Your task to perform on an android device: Add razer deathadder to the cart on newegg.com, then select checkout. Image 0: 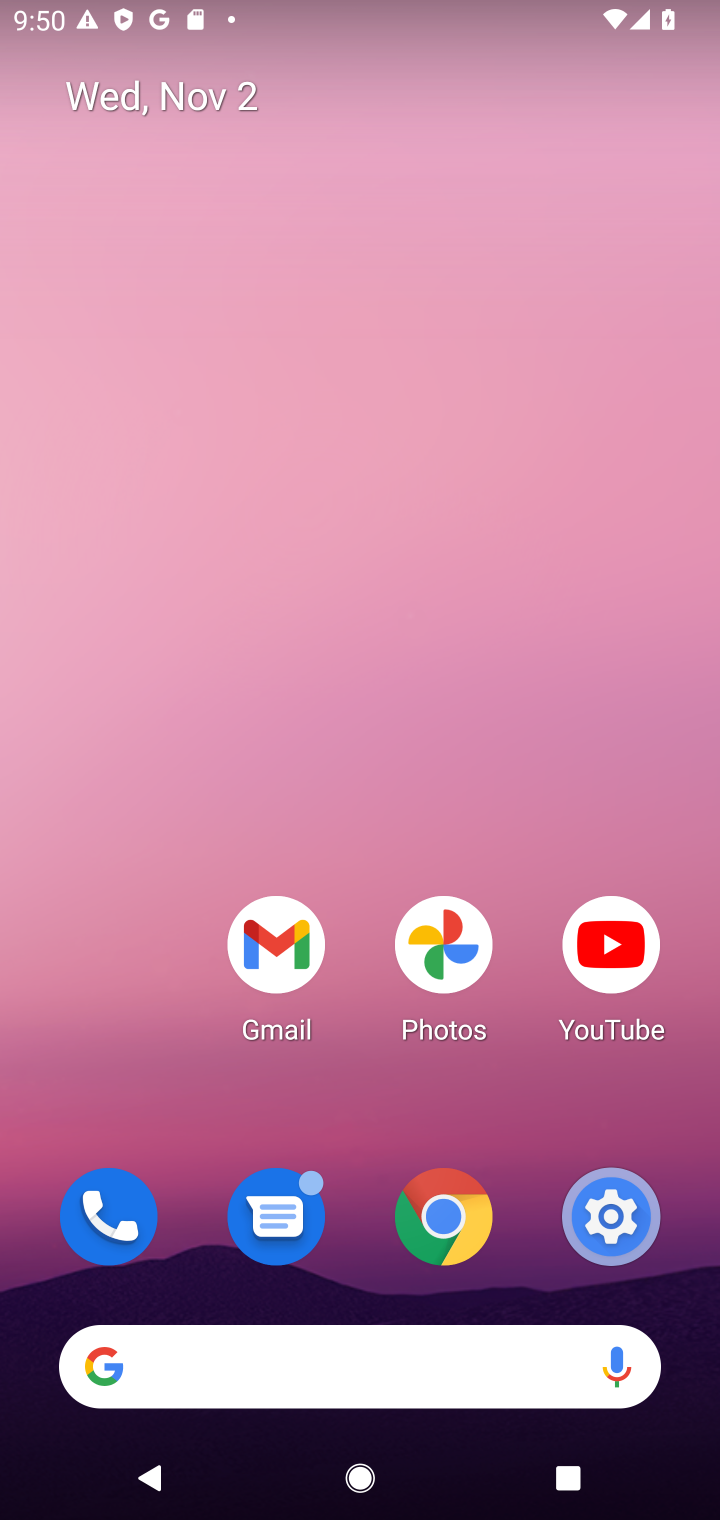
Step 0: click (427, 478)
Your task to perform on an android device: Add razer deathadder to the cart on newegg.com, then select checkout. Image 1: 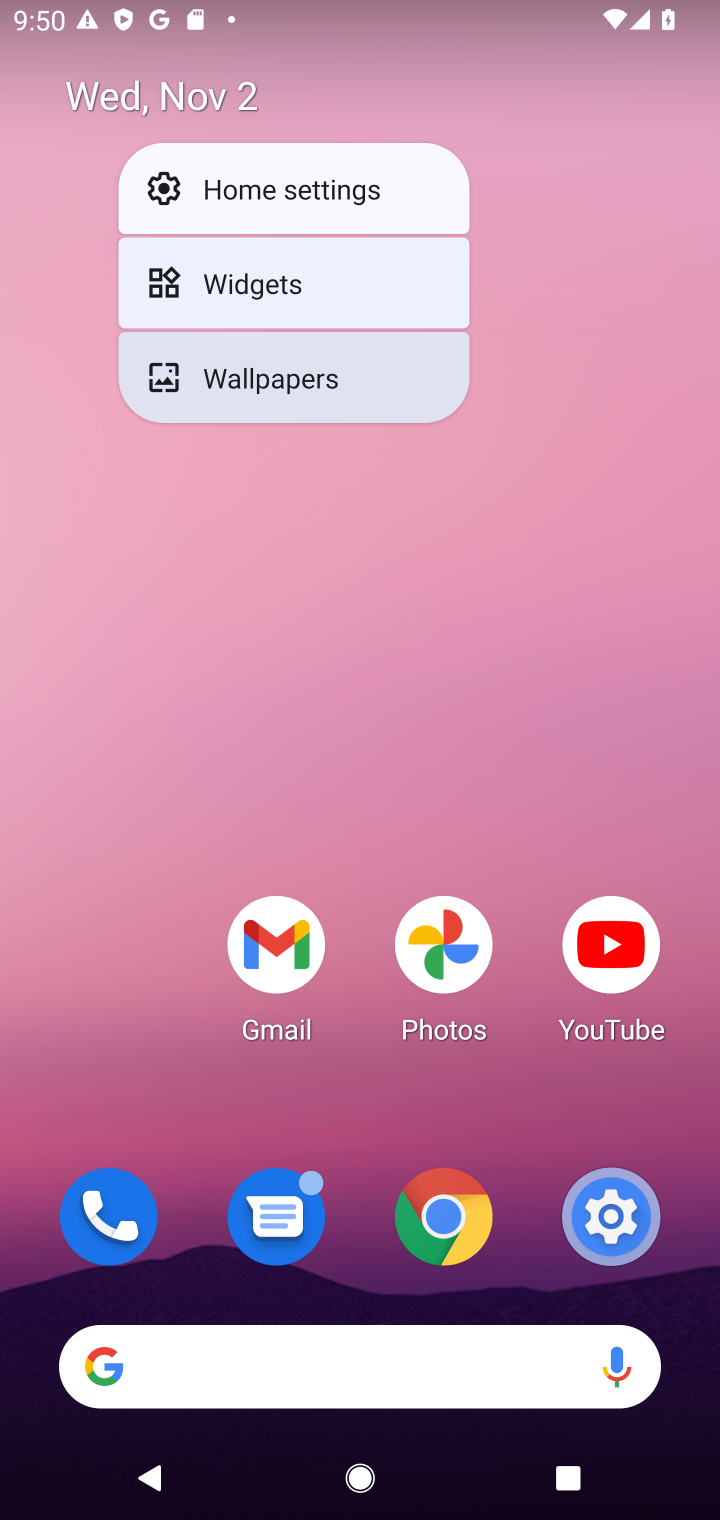
Step 1: press home button
Your task to perform on an android device: Add razer deathadder to the cart on newegg.com, then select checkout. Image 2: 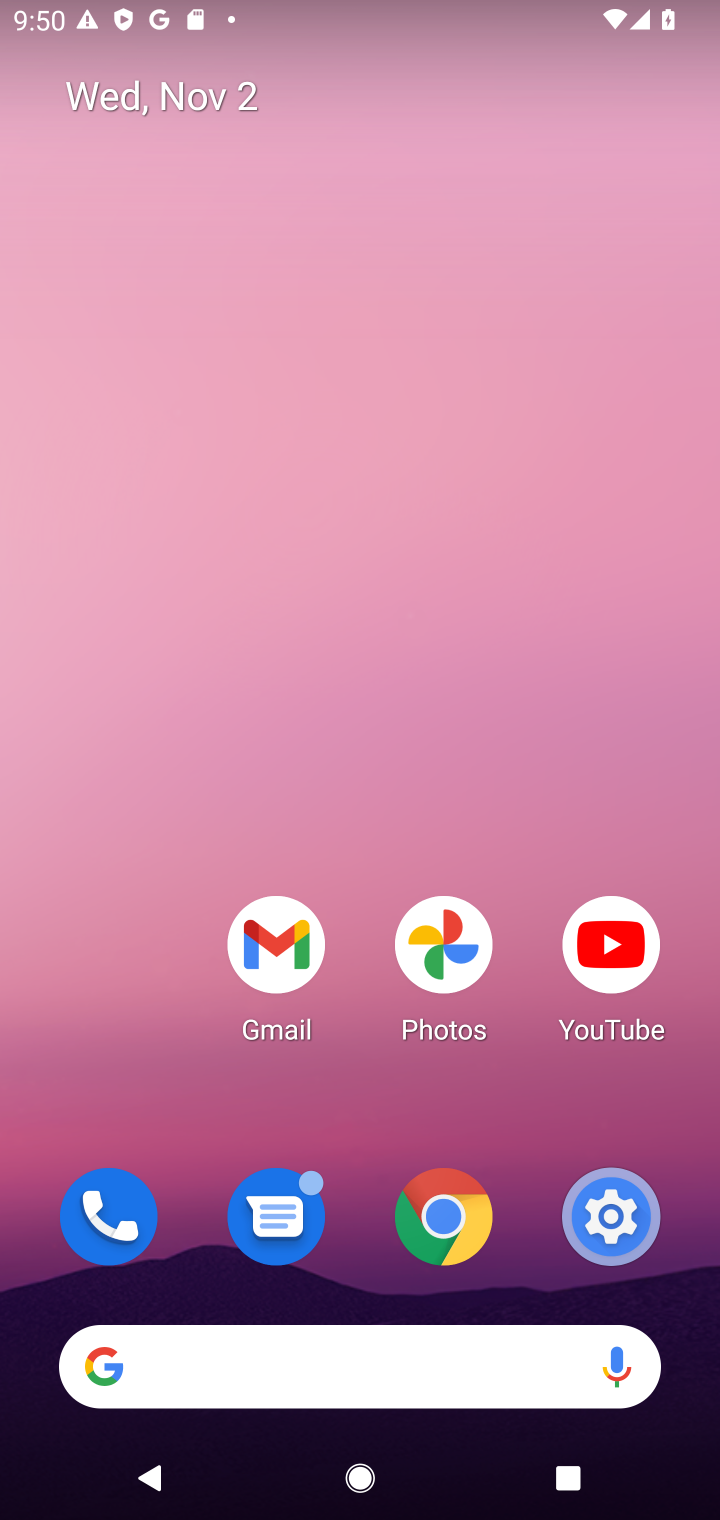
Step 2: drag from (361, 1098) to (381, 15)
Your task to perform on an android device: Add razer deathadder to the cart on newegg.com, then select checkout. Image 3: 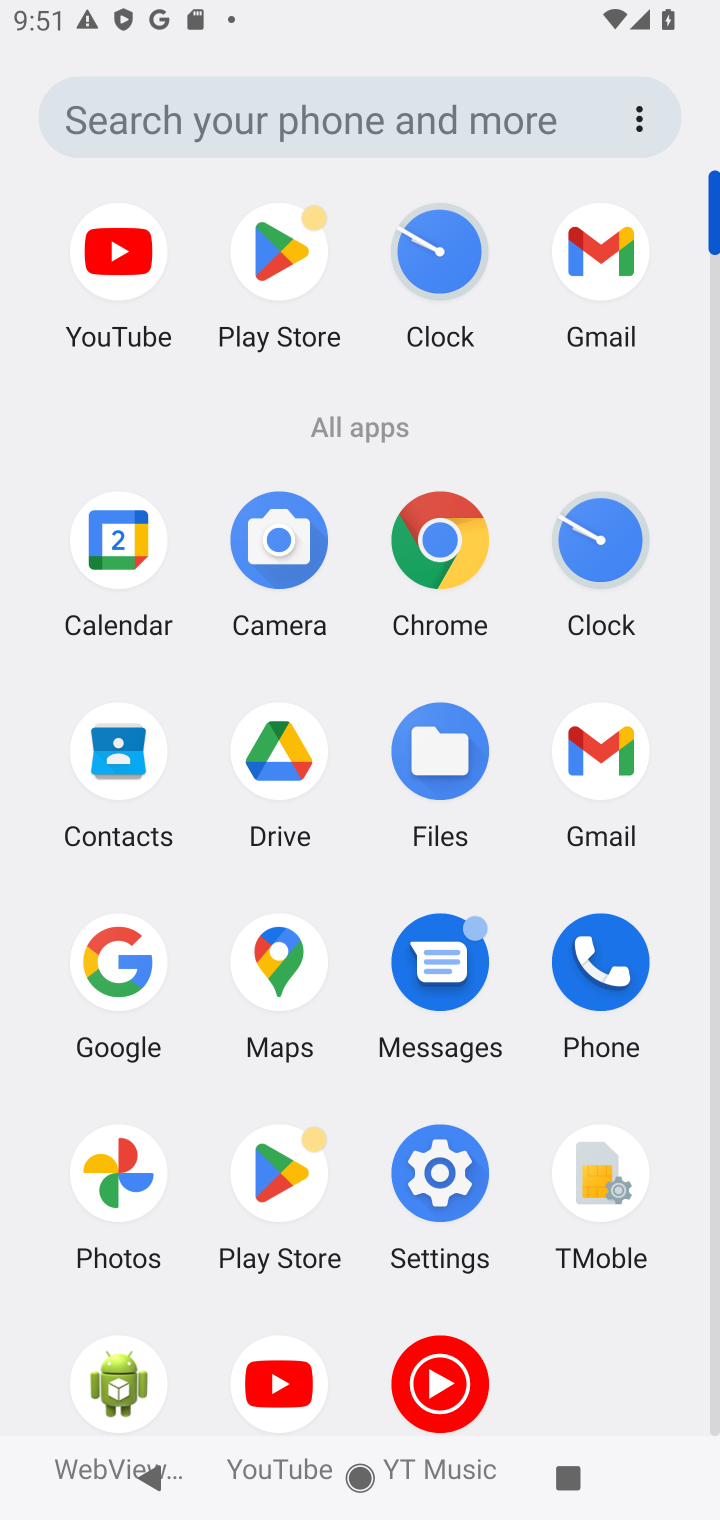
Step 3: click (445, 547)
Your task to perform on an android device: Add razer deathadder to the cart on newegg.com, then select checkout. Image 4: 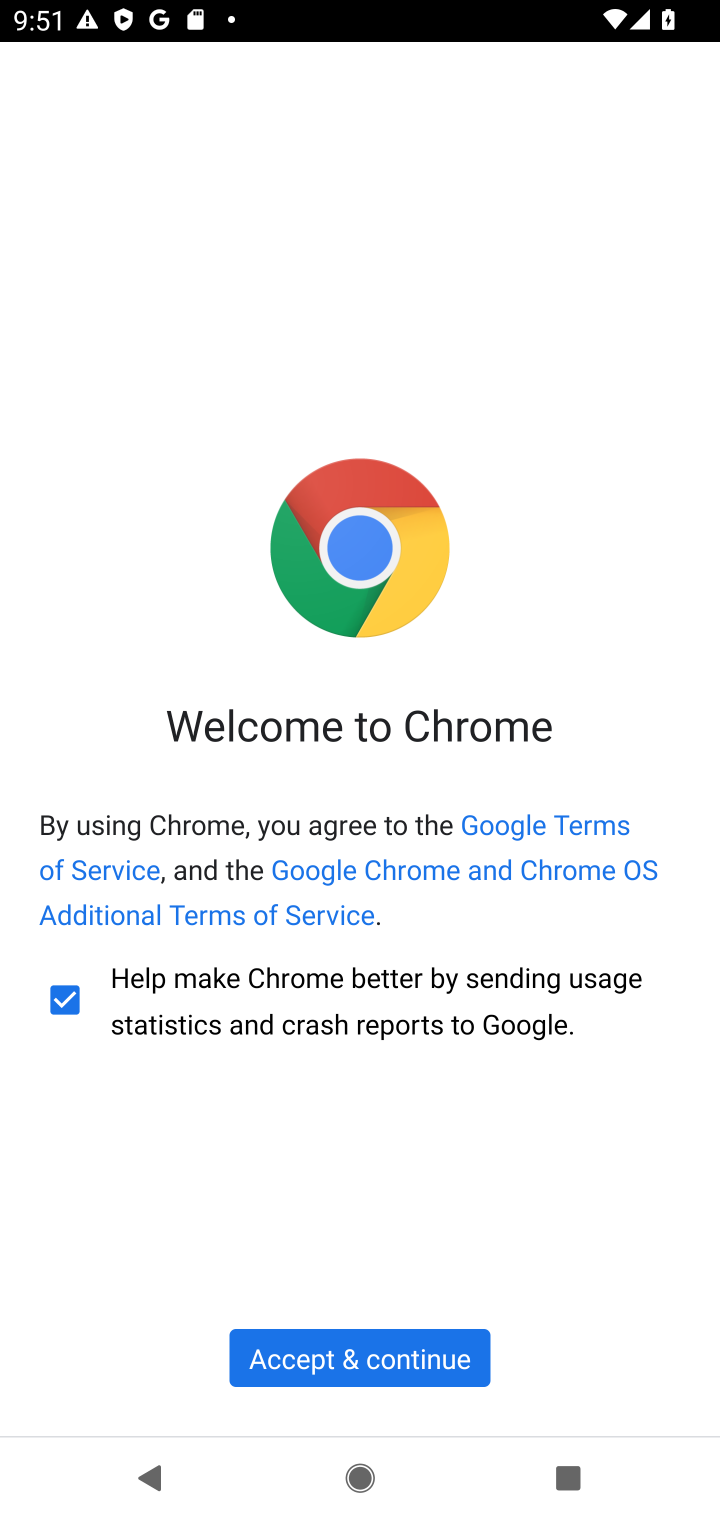
Step 4: click (337, 1372)
Your task to perform on an android device: Add razer deathadder to the cart on newegg.com, then select checkout. Image 5: 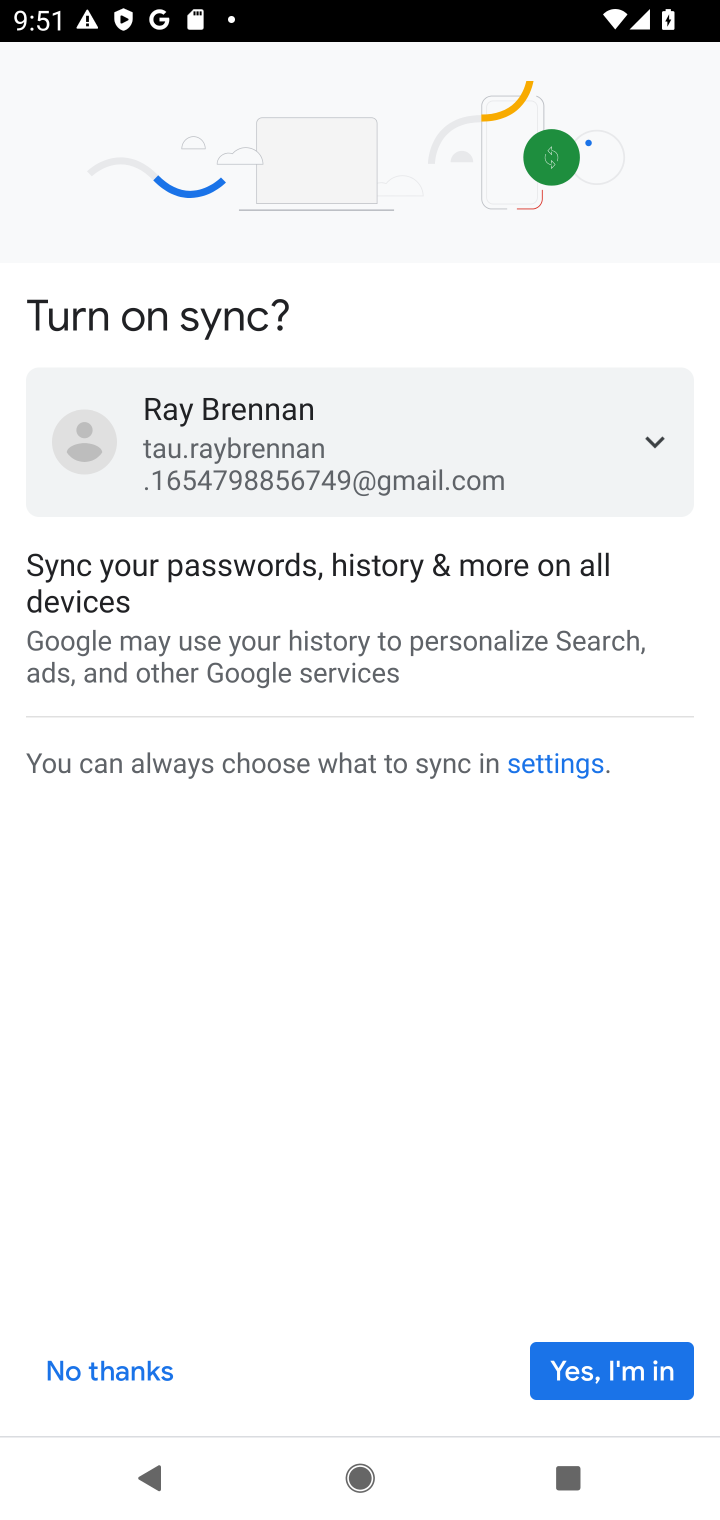
Step 5: click (597, 1367)
Your task to perform on an android device: Add razer deathadder to the cart on newegg.com, then select checkout. Image 6: 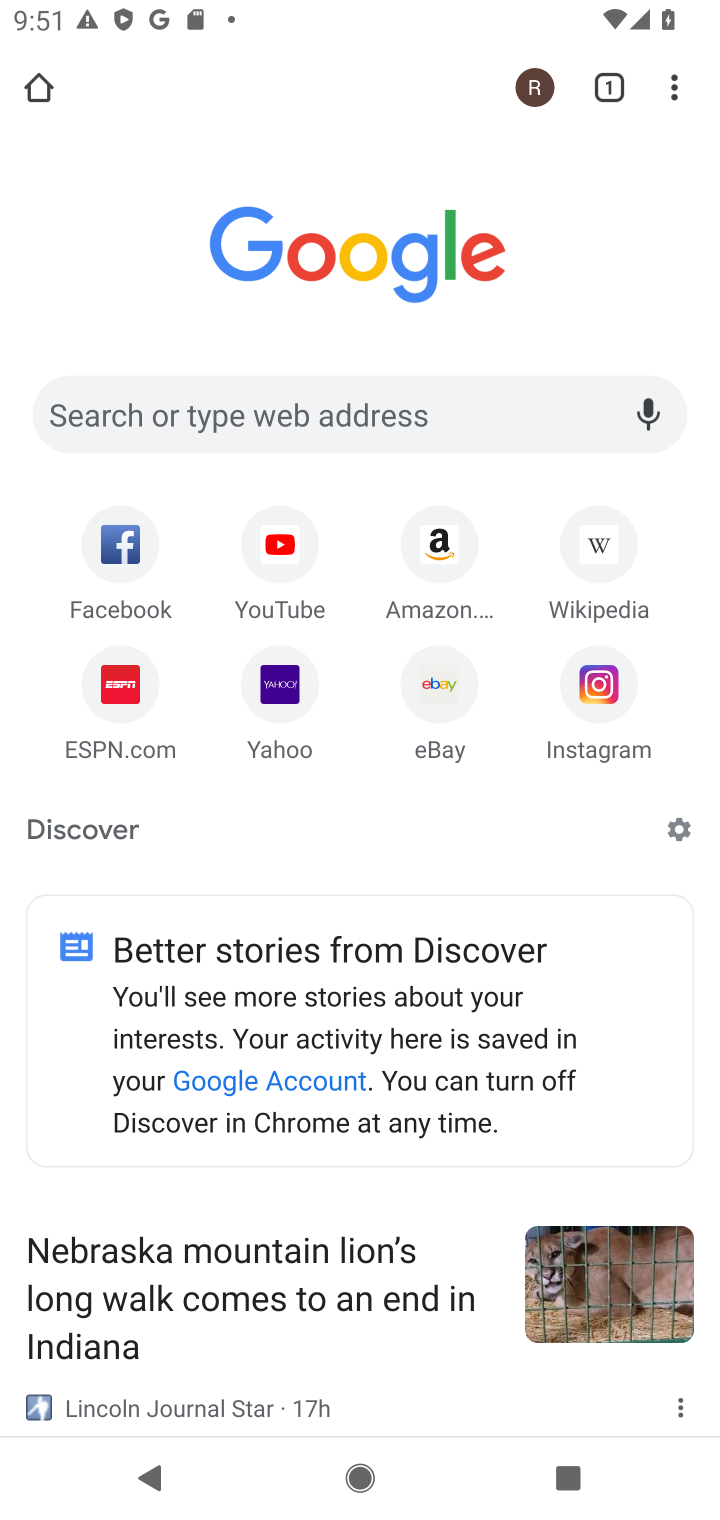
Step 6: click (272, 408)
Your task to perform on an android device: Add razer deathadder to the cart on newegg.com, then select checkout. Image 7: 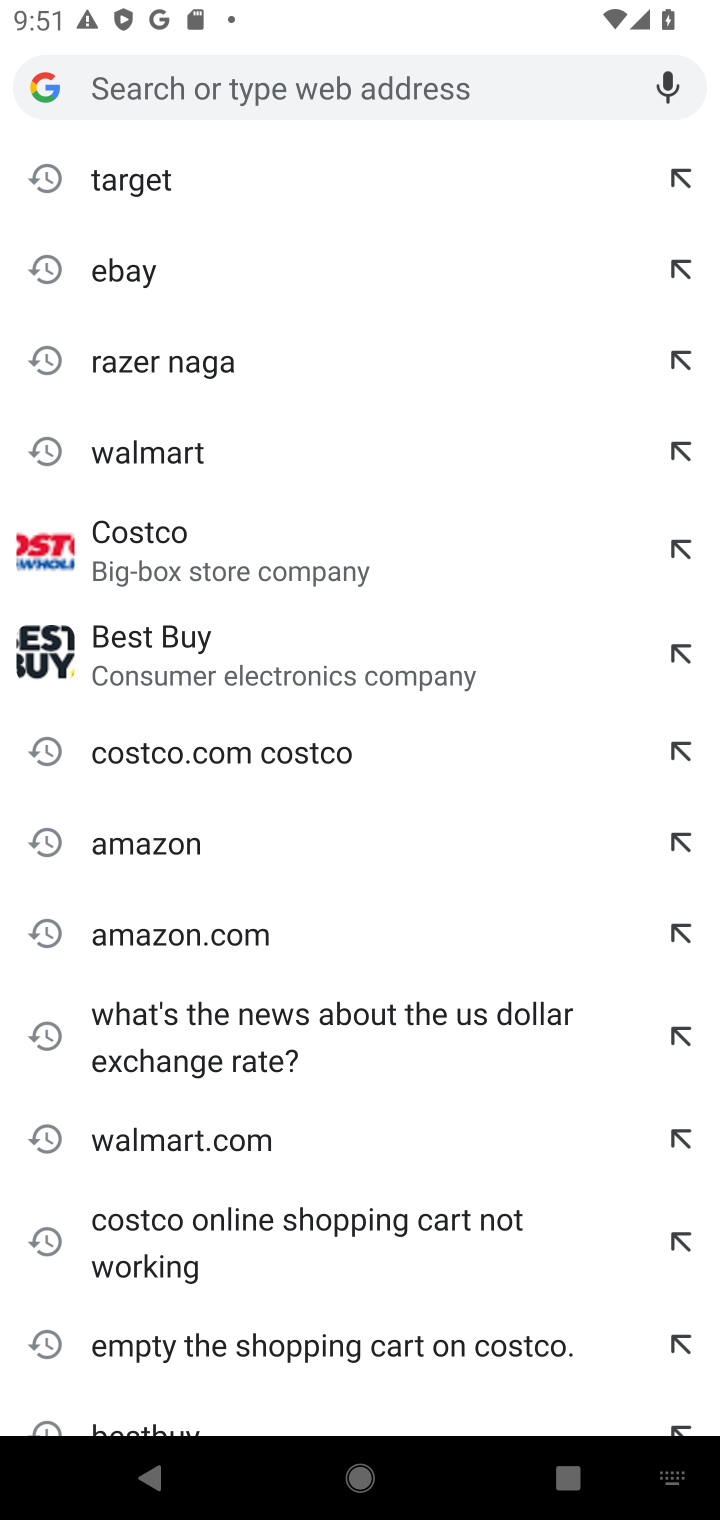
Step 7: type "newegg"
Your task to perform on an android device: Add razer deathadder to the cart on newegg.com, then select checkout. Image 8: 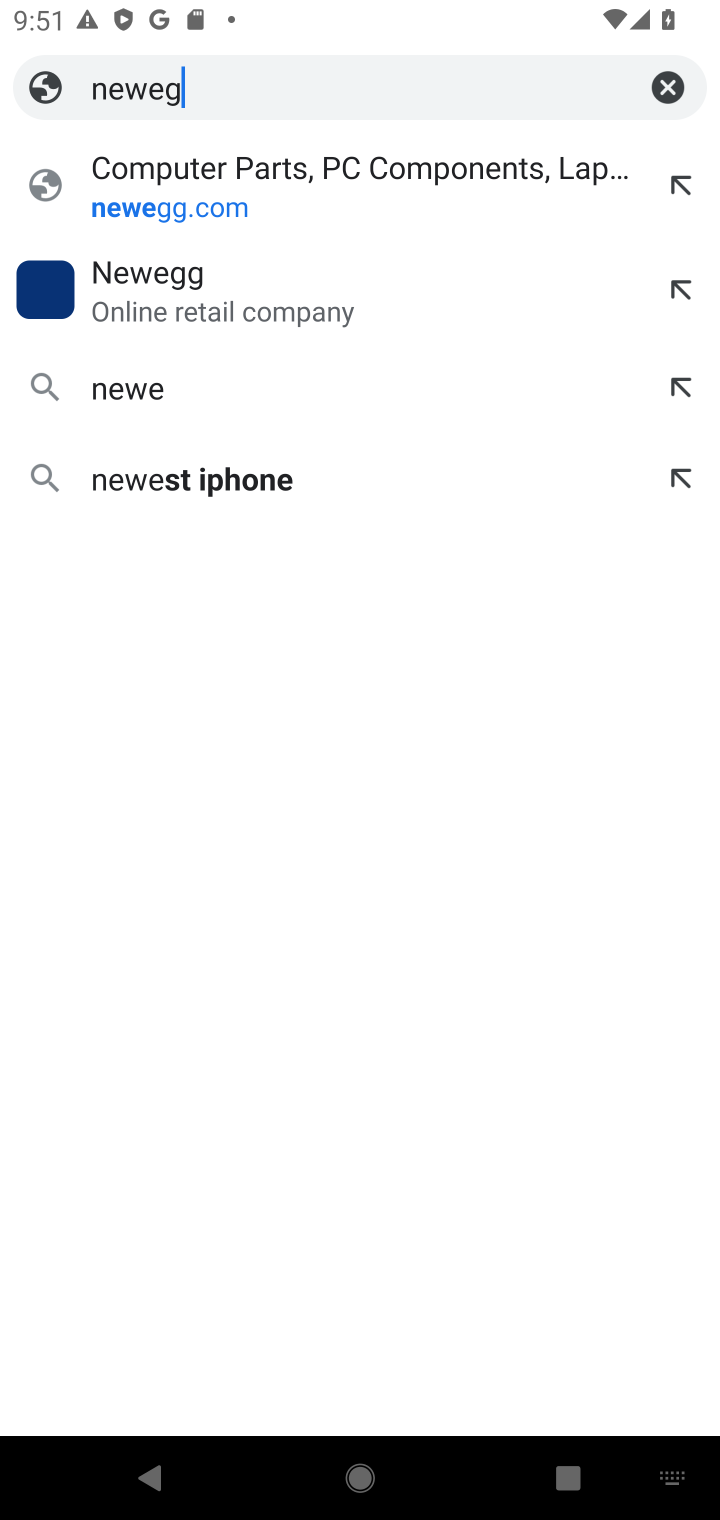
Step 8: type ""
Your task to perform on an android device: Add razer deathadder to the cart on newegg.com, then select checkout. Image 9: 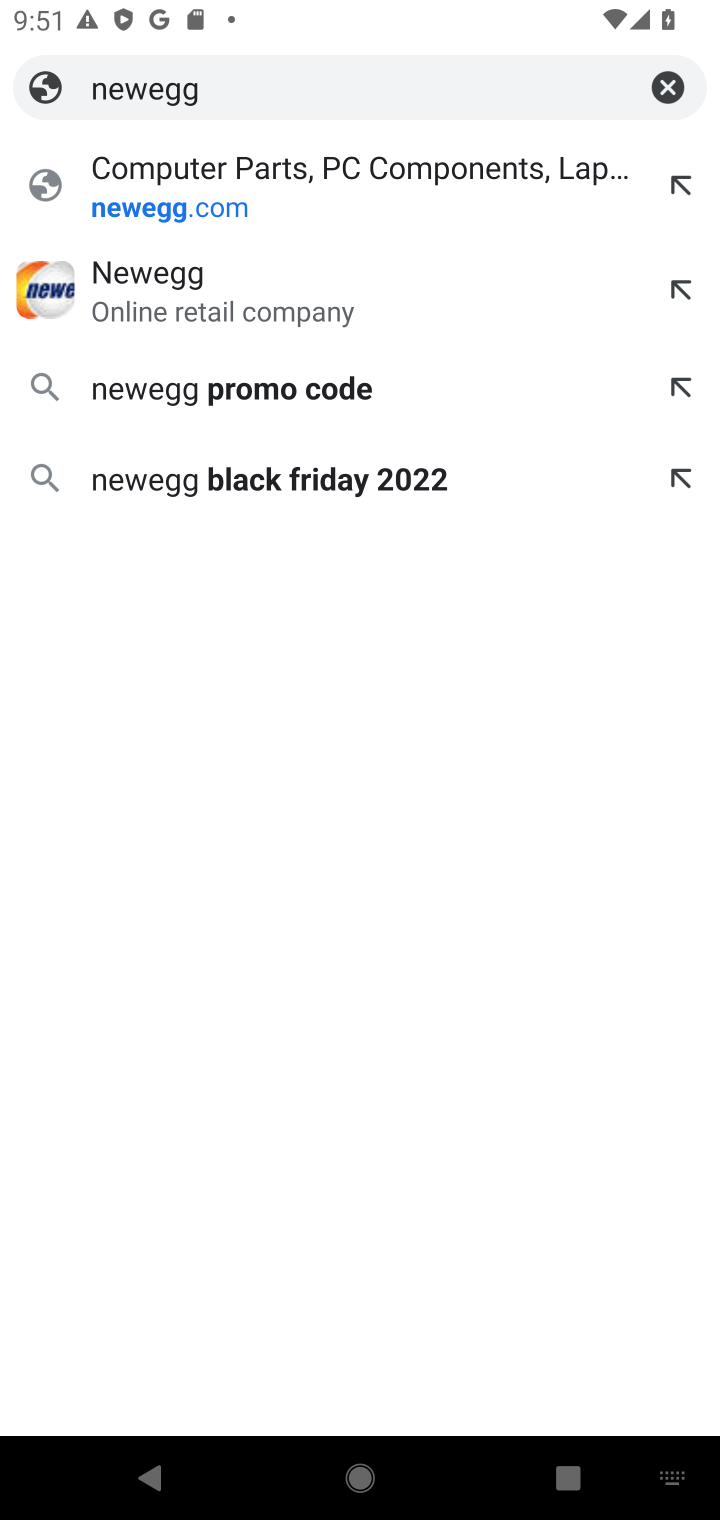
Step 9: click (259, 296)
Your task to perform on an android device: Add razer deathadder to the cart on newegg.com, then select checkout. Image 10: 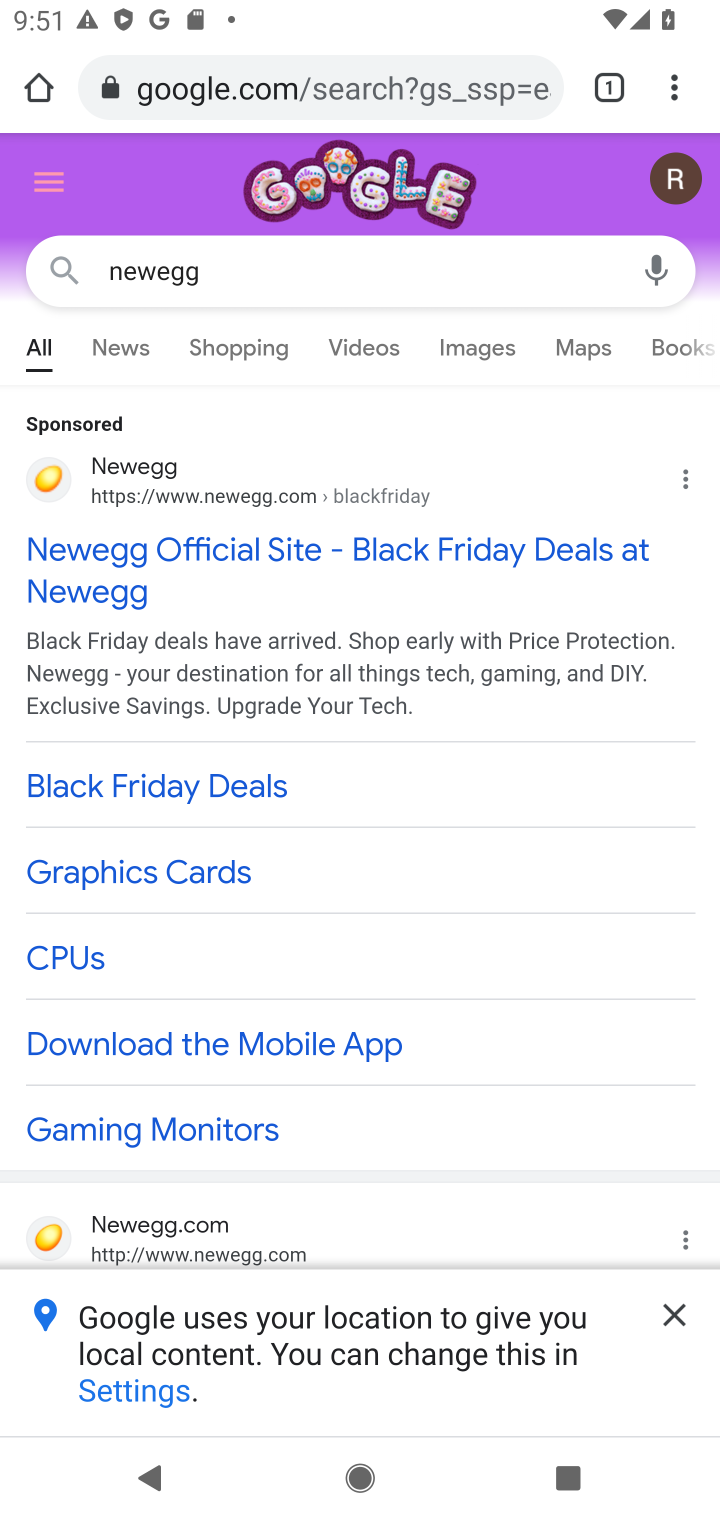
Step 10: click (198, 550)
Your task to perform on an android device: Add razer deathadder to the cart on newegg.com, then select checkout. Image 11: 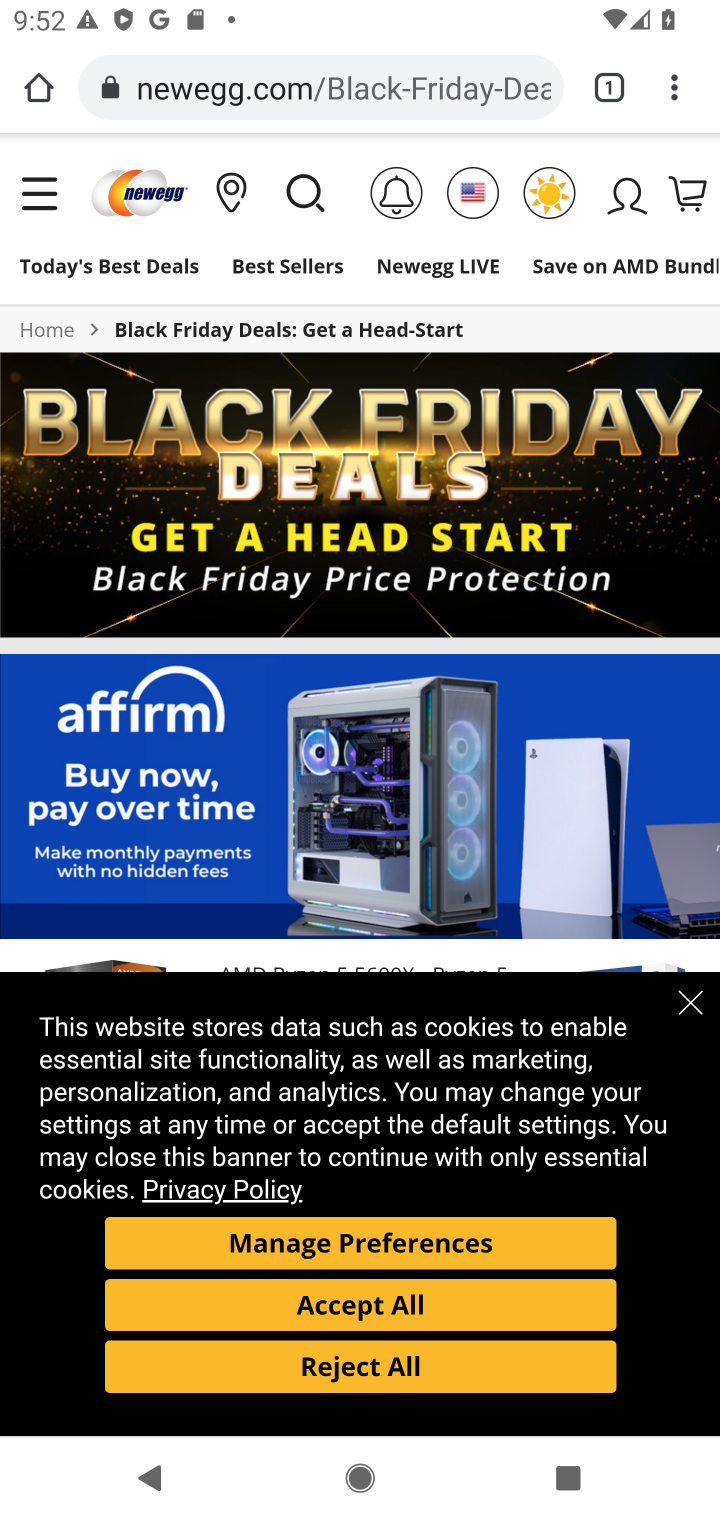
Step 11: click (309, 195)
Your task to perform on an android device: Add razer deathadder to the cart on newegg.com, then select checkout. Image 12: 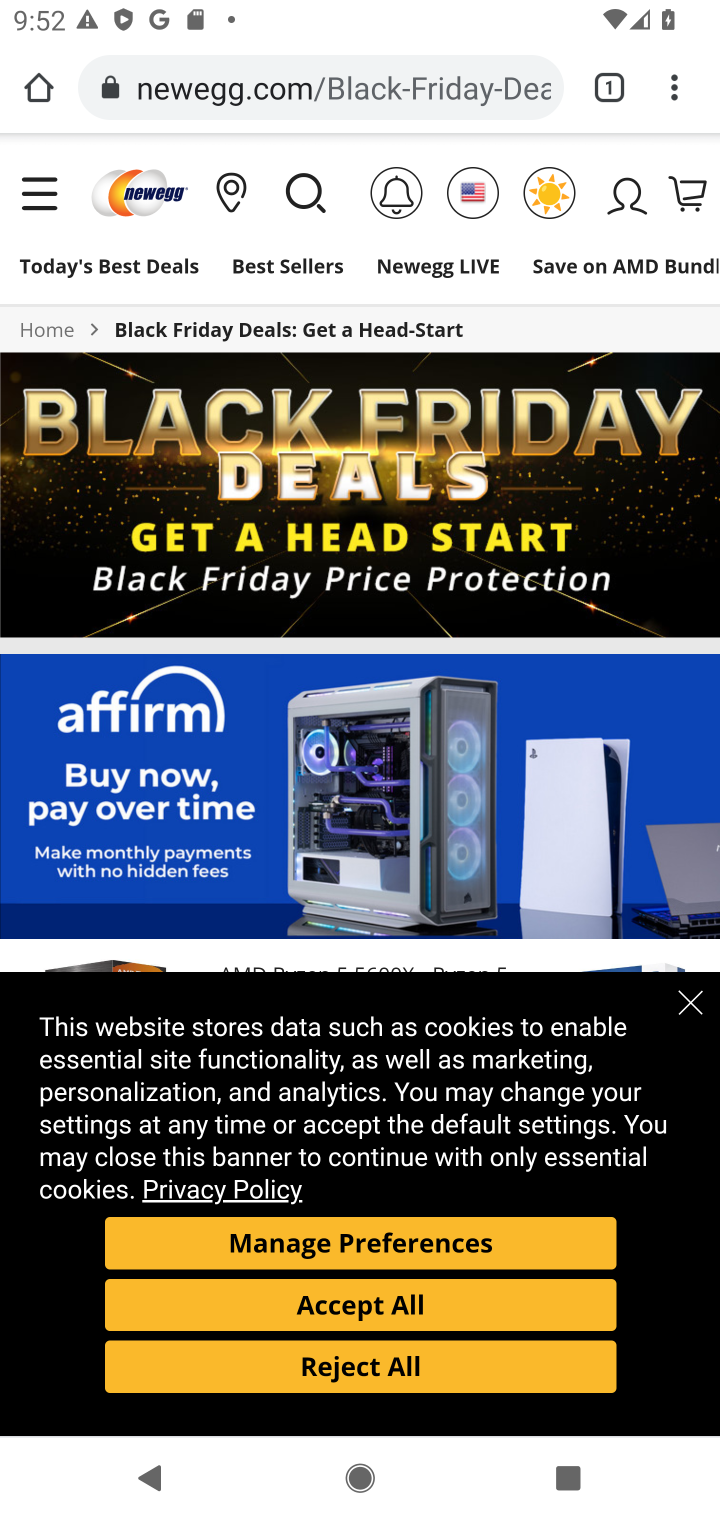
Step 12: click (295, 193)
Your task to perform on an android device: Add razer deathadder to the cart on newegg.com, then select checkout. Image 13: 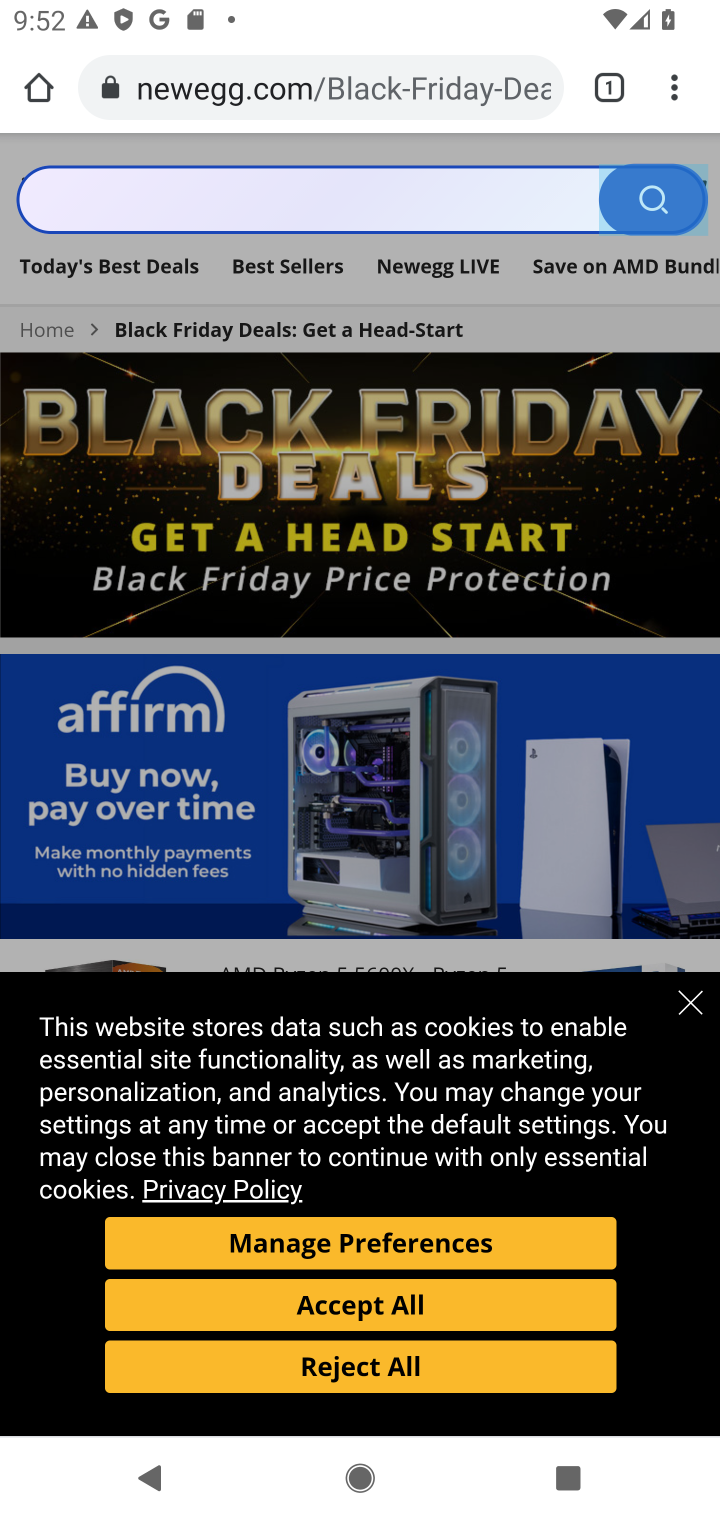
Step 13: click (195, 192)
Your task to perform on an android device: Add razer deathadder to the cart on newegg.com, then select checkout. Image 14: 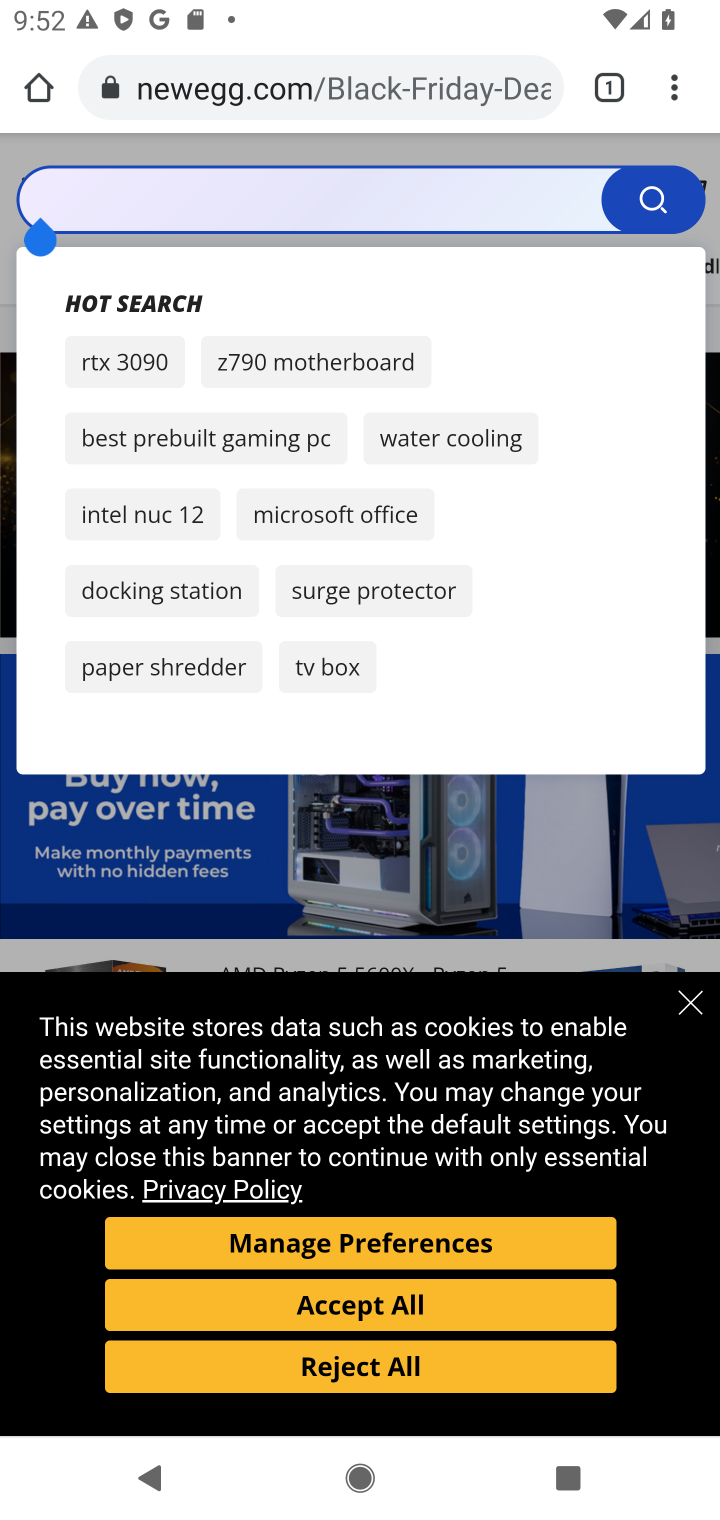
Step 14: type "razer deathadder"
Your task to perform on an android device: Add razer deathadder to the cart on newegg.com, then select checkout. Image 15: 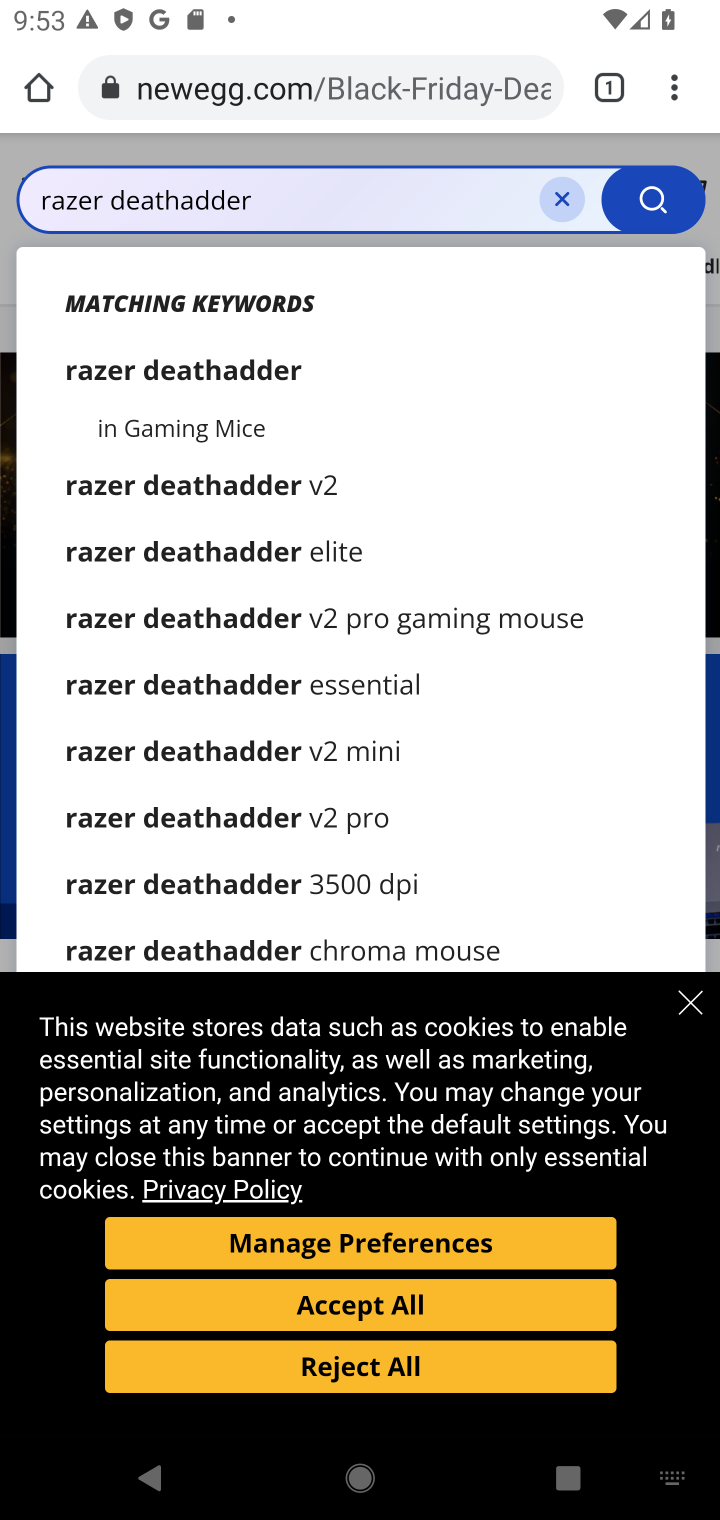
Step 15: click (686, 1006)
Your task to perform on an android device: Add razer deathadder to the cart on newegg.com, then select checkout. Image 16: 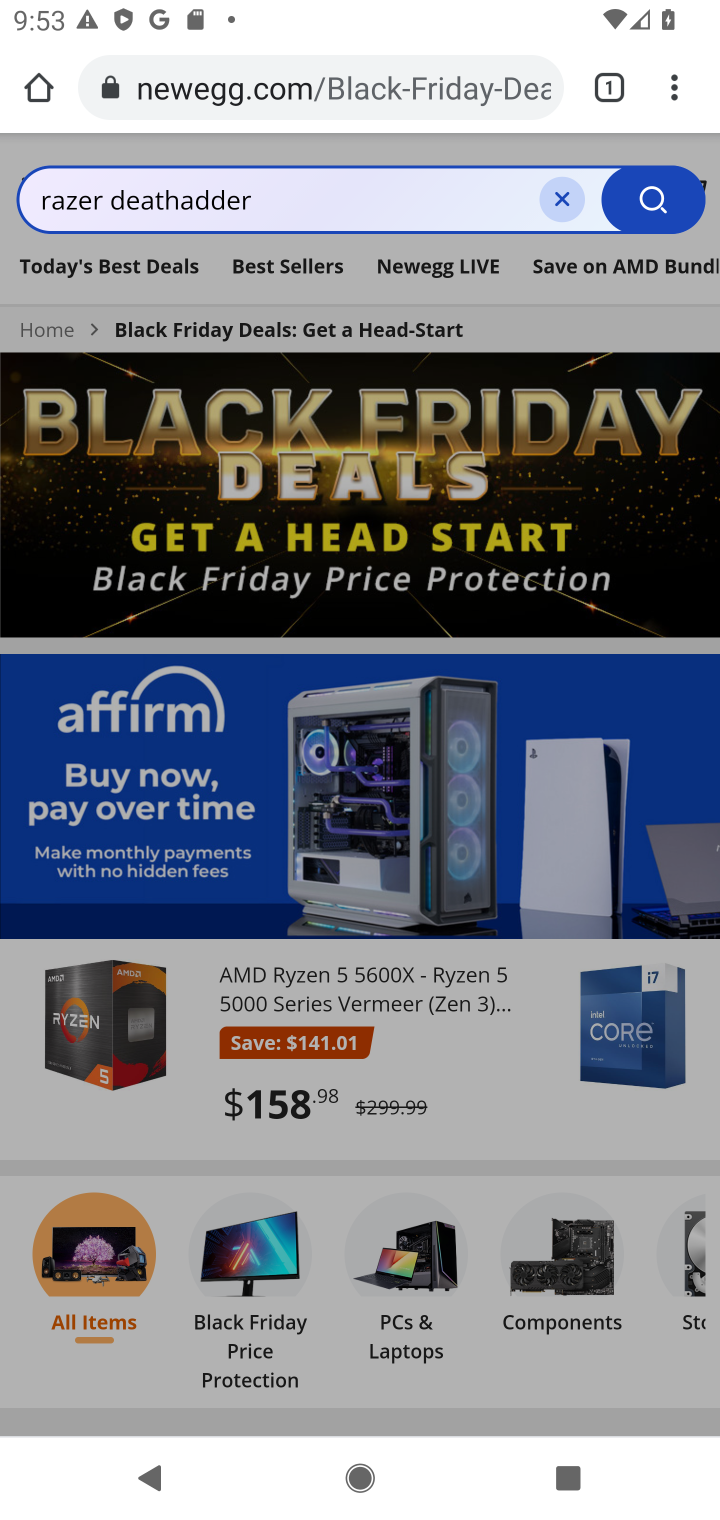
Step 16: click (661, 201)
Your task to perform on an android device: Add razer deathadder to the cart on newegg.com, then select checkout. Image 17: 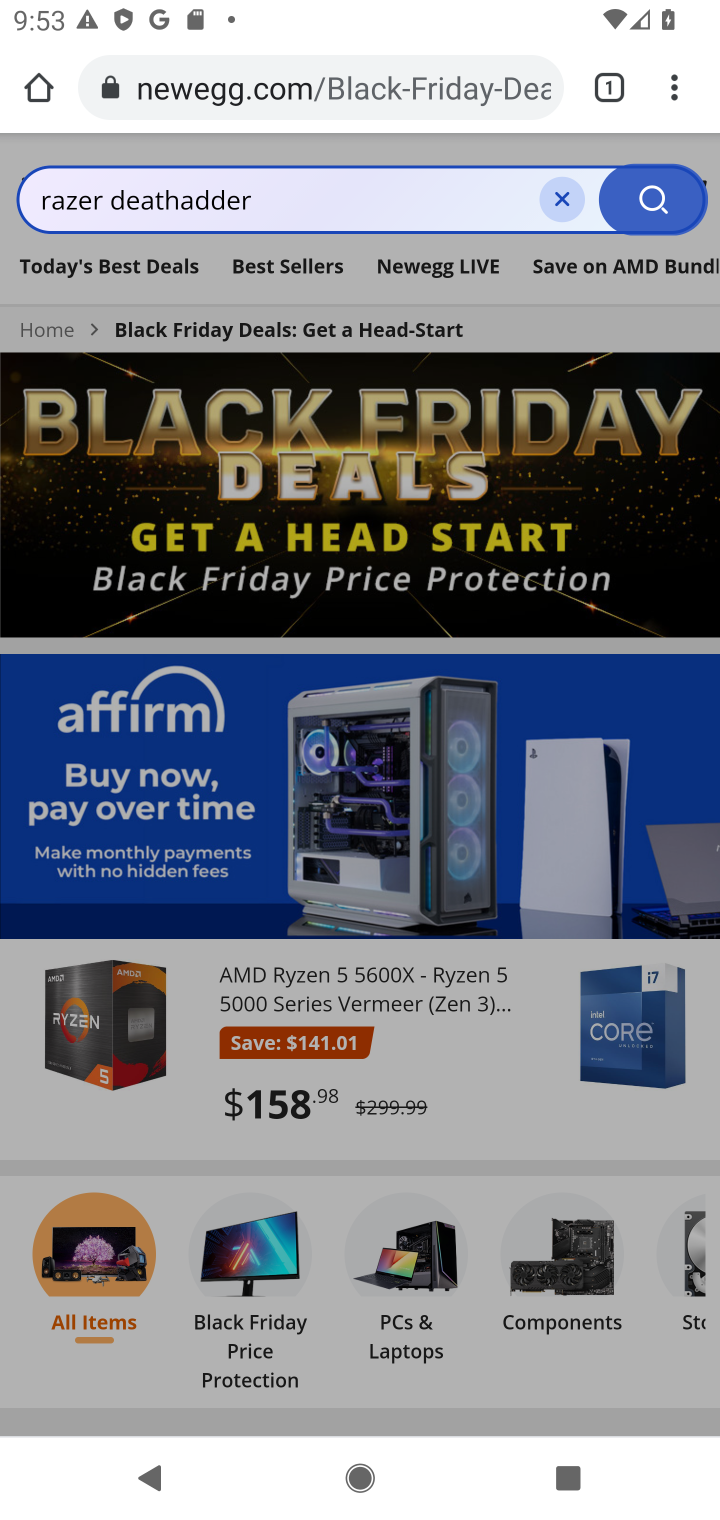
Step 17: click (661, 201)
Your task to perform on an android device: Add razer deathadder to the cart on newegg.com, then select checkout. Image 18: 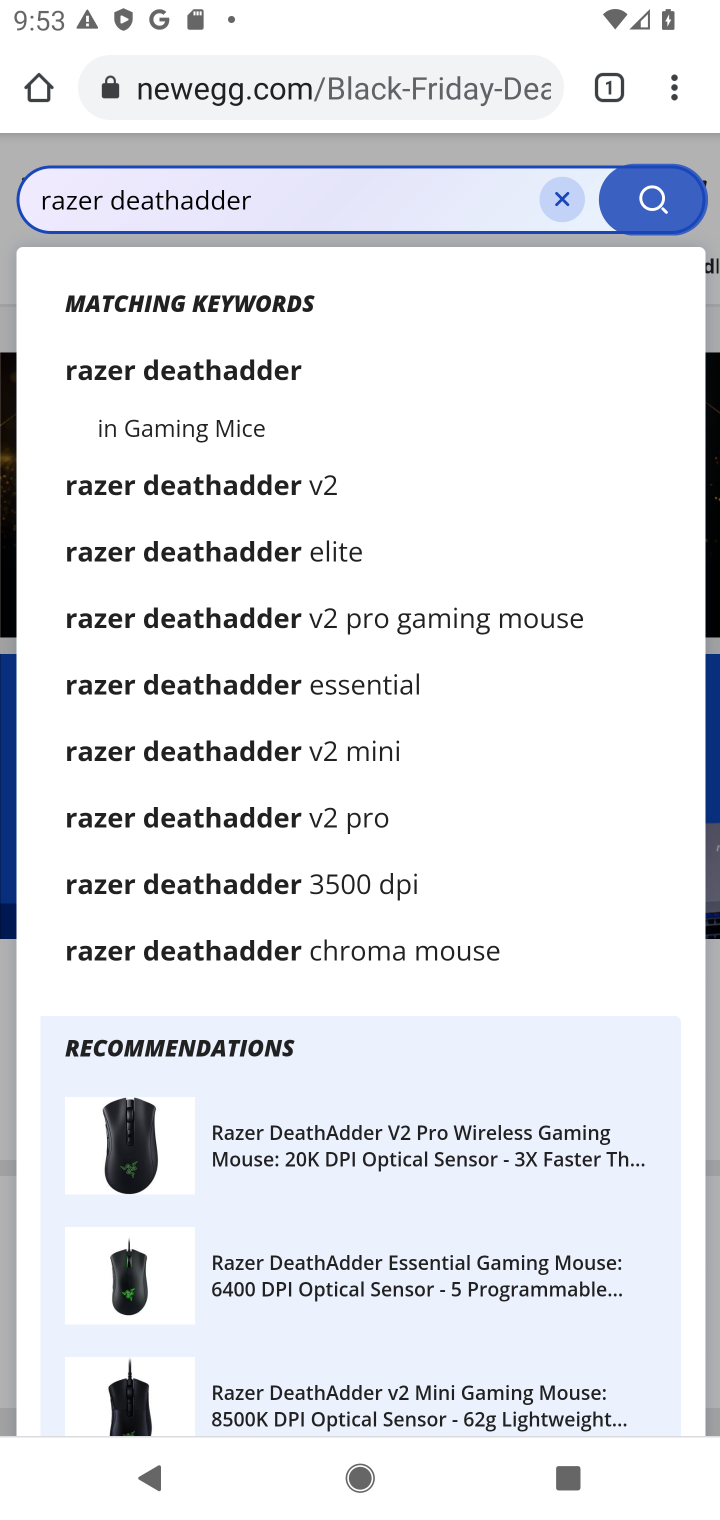
Step 18: click (233, 399)
Your task to perform on an android device: Add razer deathadder to the cart on newegg.com, then select checkout. Image 19: 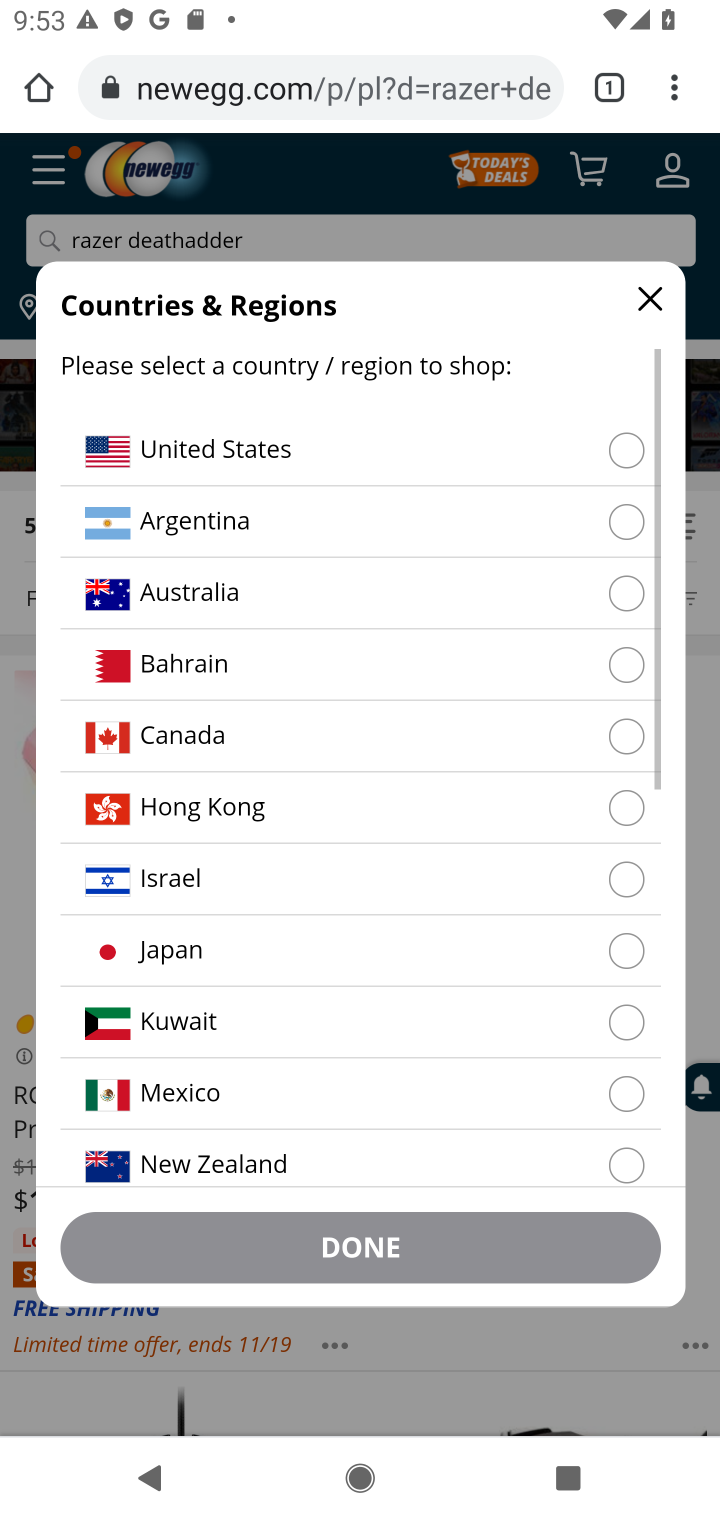
Step 19: click (629, 455)
Your task to perform on an android device: Add razer deathadder to the cart on newegg.com, then select checkout. Image 20: 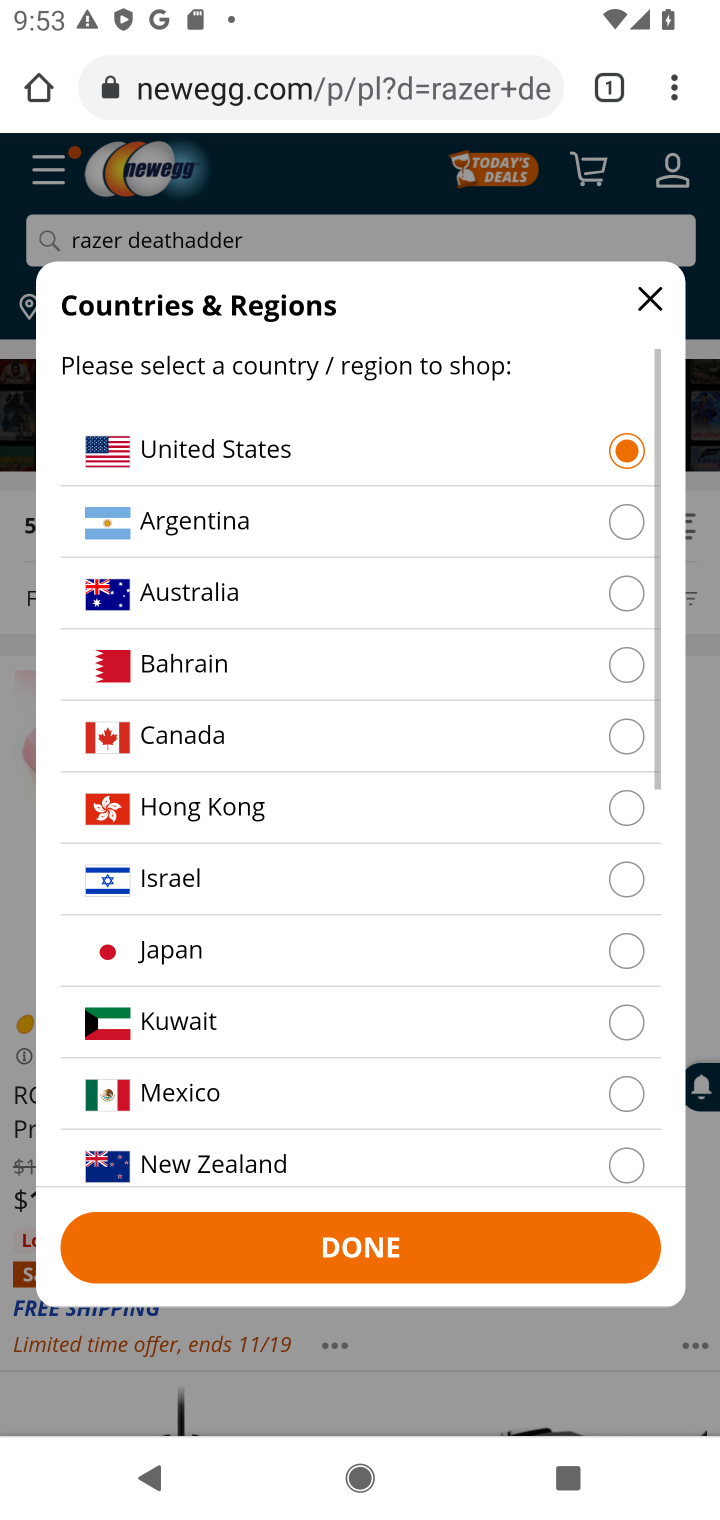
Step 20: click (386, 1238)
Your task to perform on an android device: Add razer deathadder to the cart on newegg.com, then select checkout. Image 21: 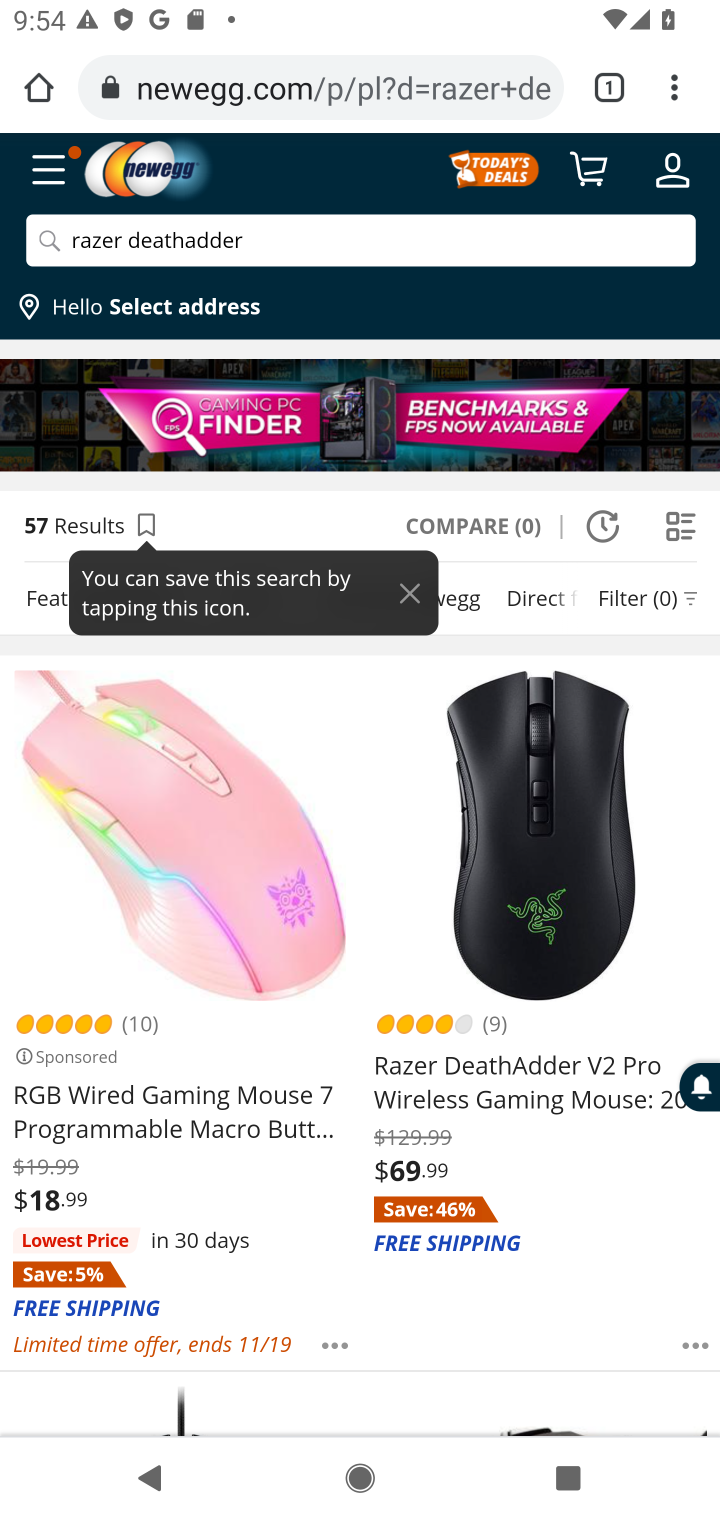
Step 21: click (489, 914)
Your task to perform on an android device: Add razer deathadder to the cart on newegg.com, then select checkout. Image 22: 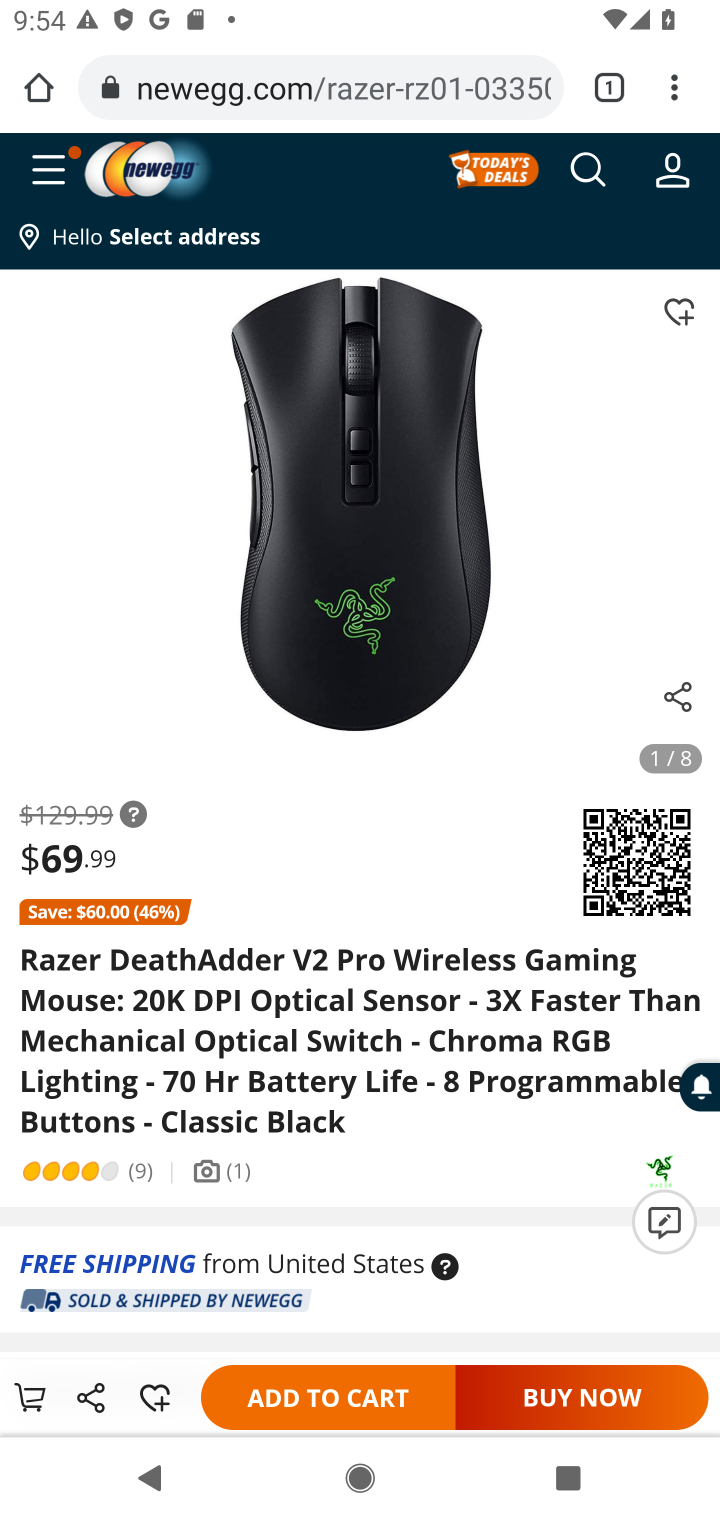
Step 22: drag from (376, 1218) to (403, 456)
Your task to perform on an android device: Add razer deathadder to the cart on newegg.com, then select checkout. Image 23: 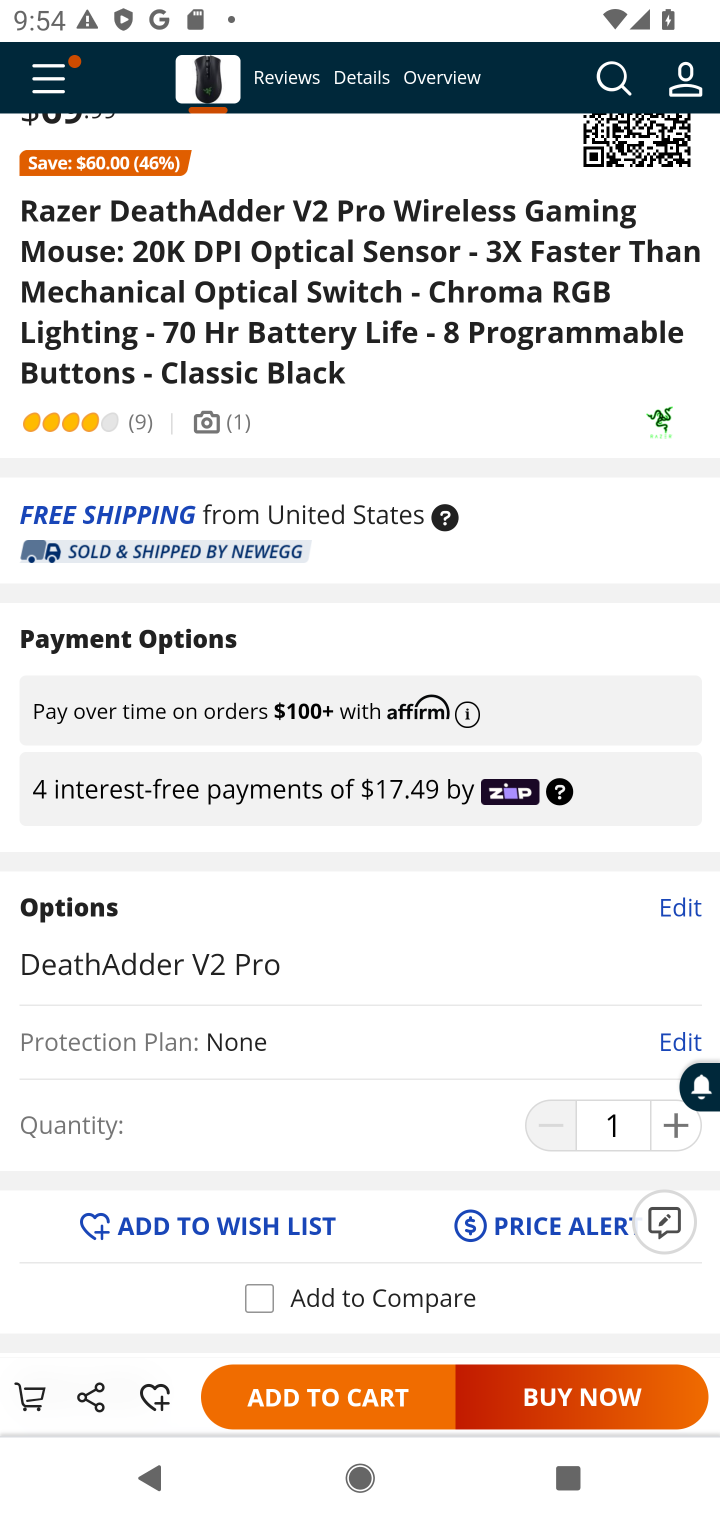
Step 23: click (278, 1404)
Your task to perform on an android device: Add razer deathadder to the cart on newegg.com, then select checkout. Image 24: 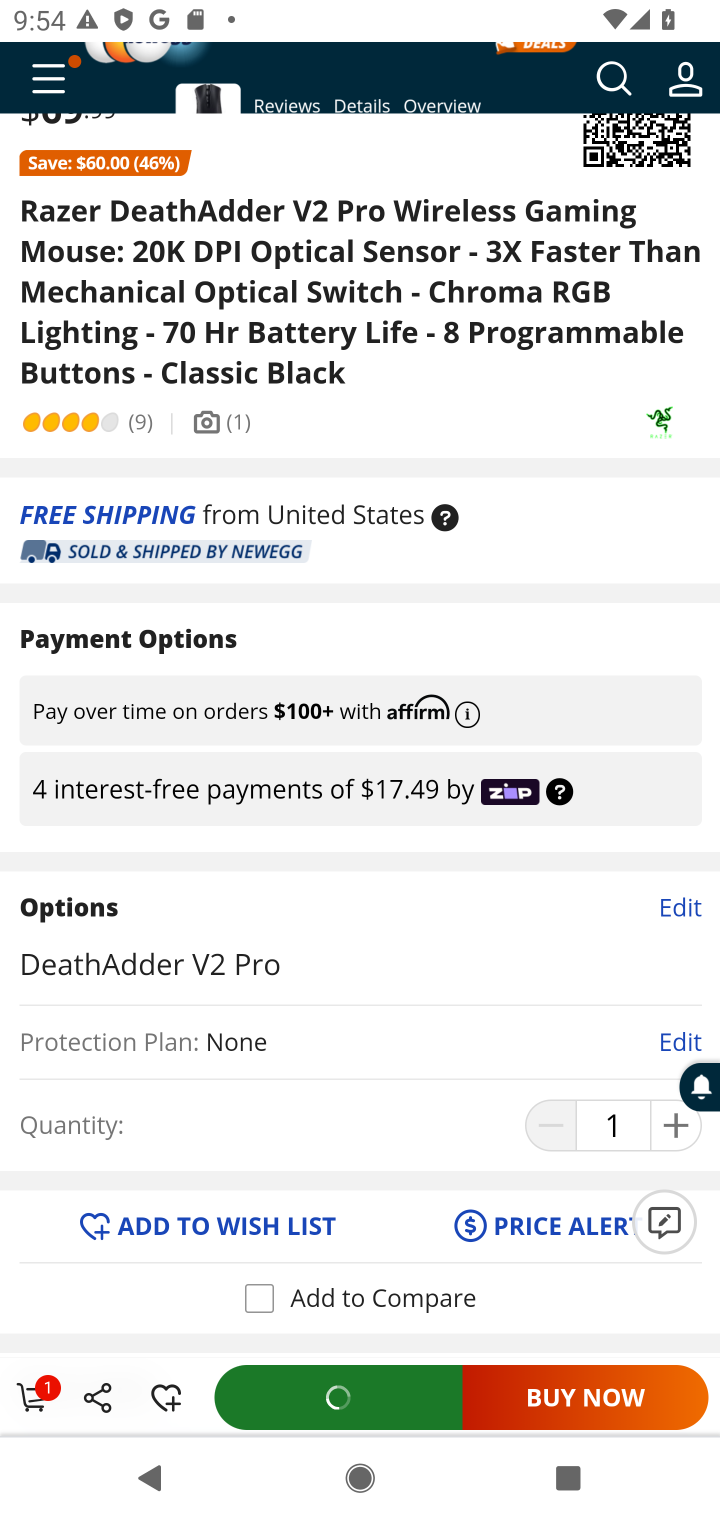
Step 24: click (42, 1390)
Your task to perform on an android device: Add razer deathadder to the cart on newegg.com, then select checkout. Image 25: 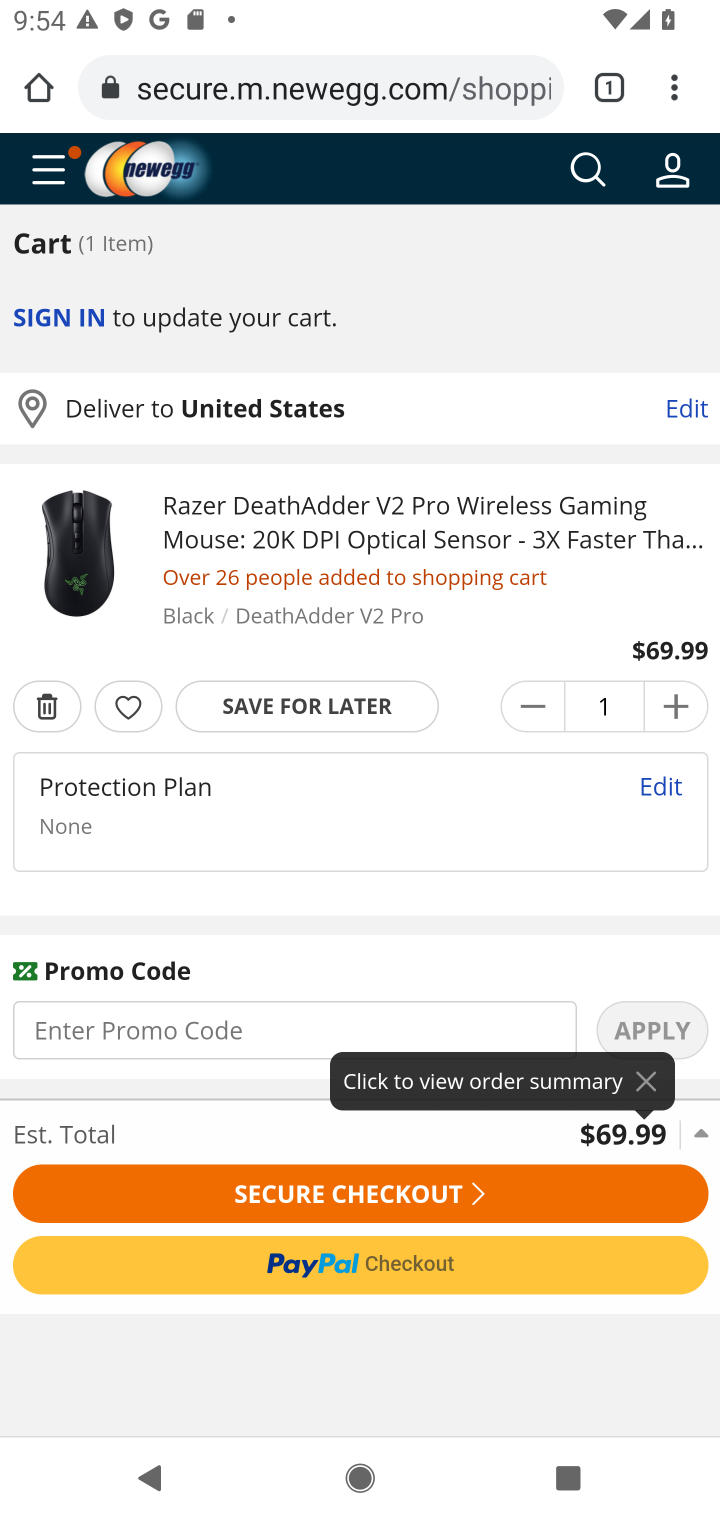
Step 25: click (371, 1207)
Your task to perform on an android device: Add razer deathadder to the cart on newegg.com, then select checkout. Image 26: 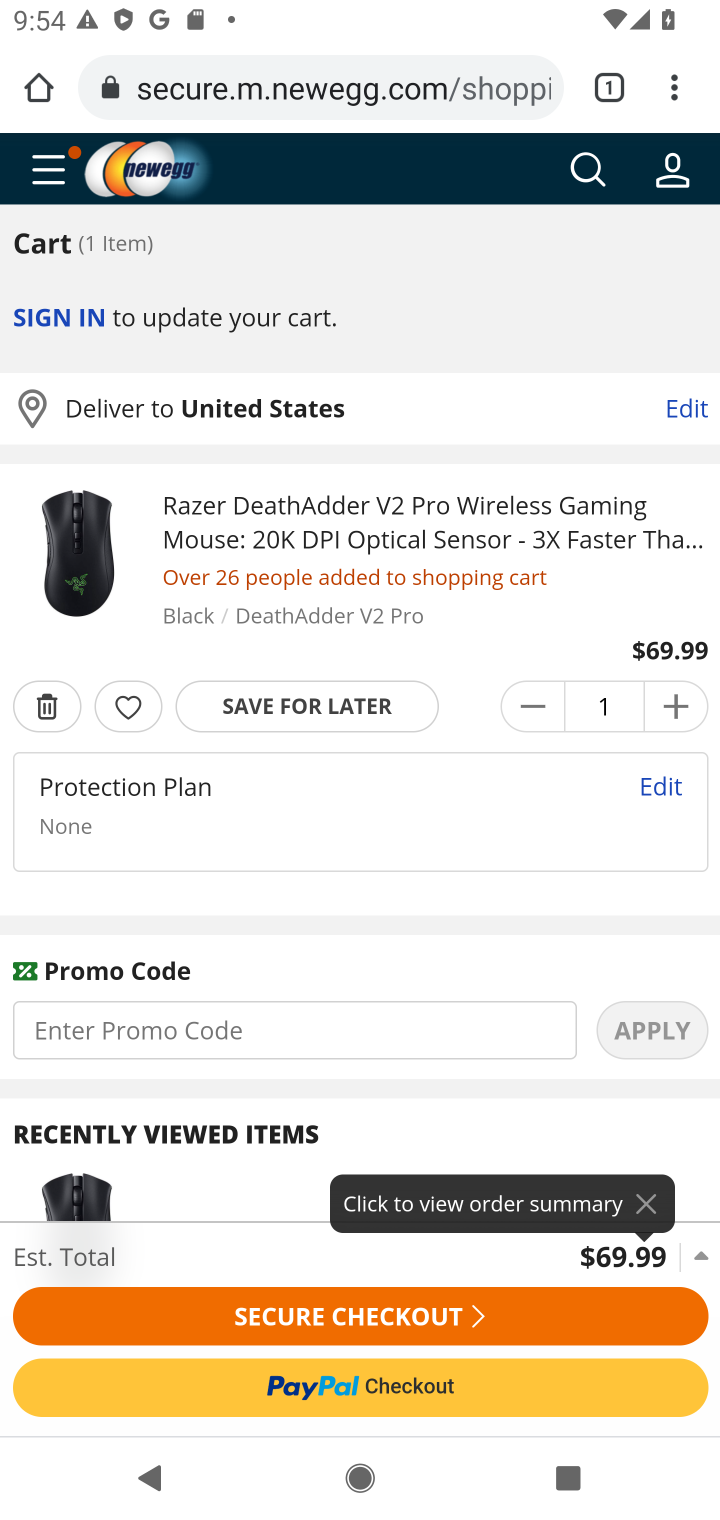
Step 26: click (439, 1313)
Your task to perform on an android device: Add razer deathadder to the cart on newegg.com, then select checkout. Image 27: 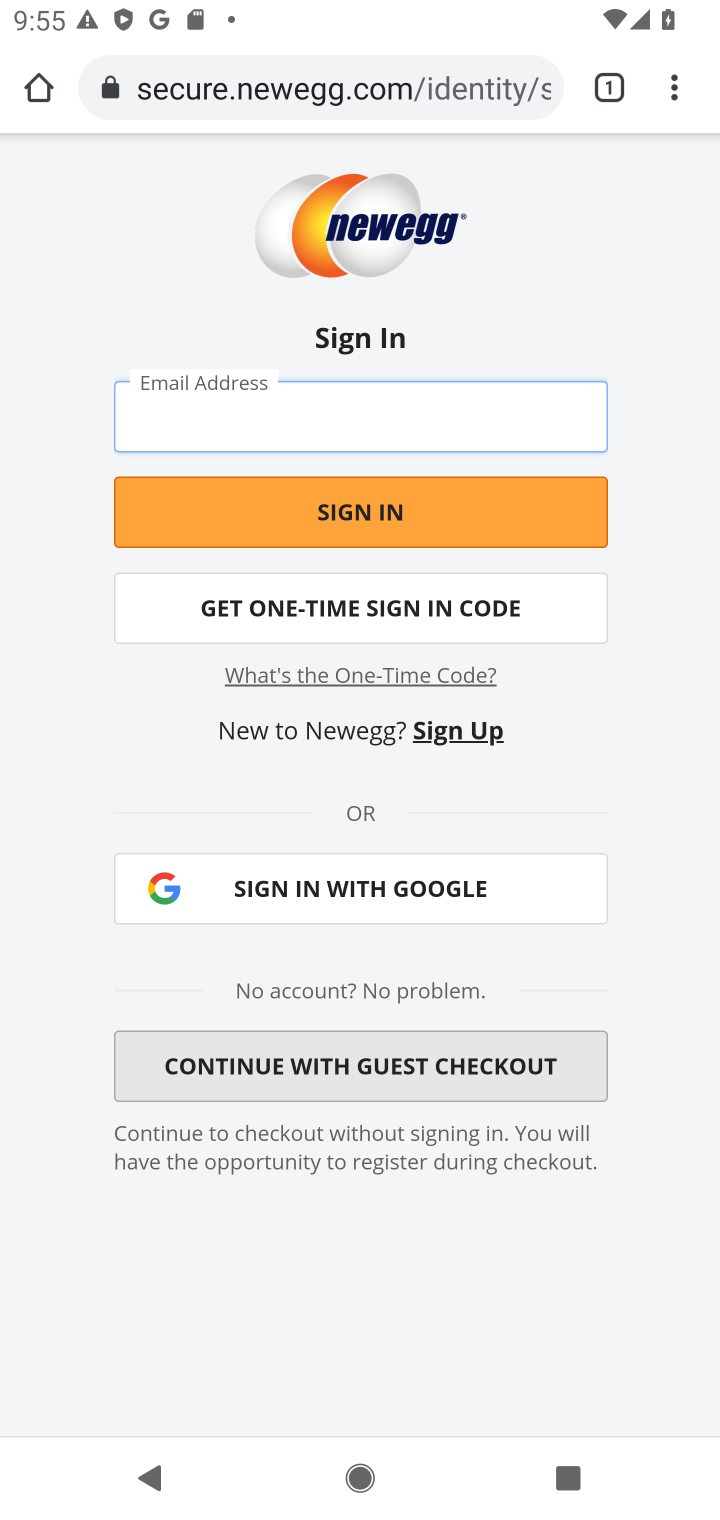
Step 27: task complete